Your task to perform on an android device: Open Yahoo.com Image 0: 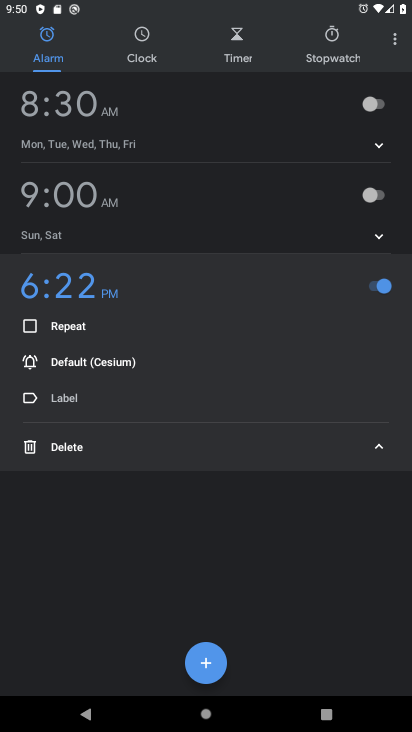
Step 0: press home button
Your task to perform on an android device: Open Yahoo.com Image 1: 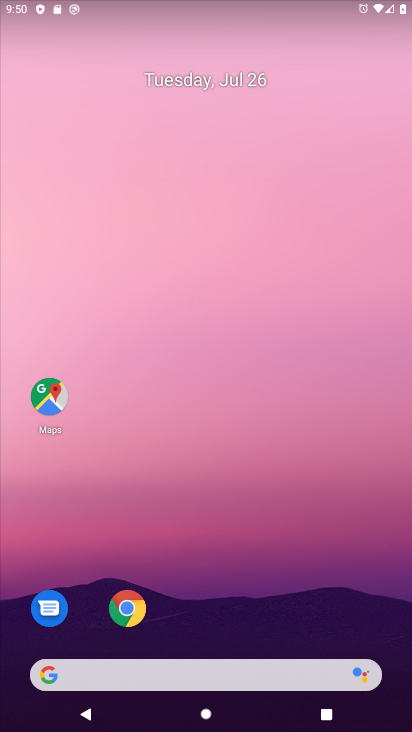
Step 1: click (131, 612)
Your task to perform on an android device: Open Yahoo.com Image 2: 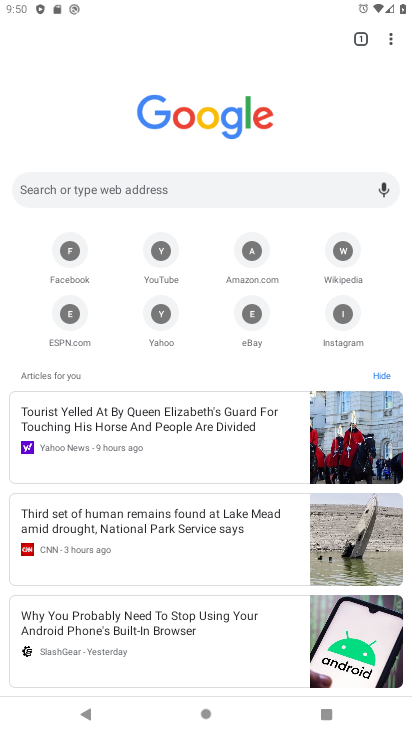
Step 2: click (157, 313)
Your task to perform on an android device: Open Yahoo.com Image 3: 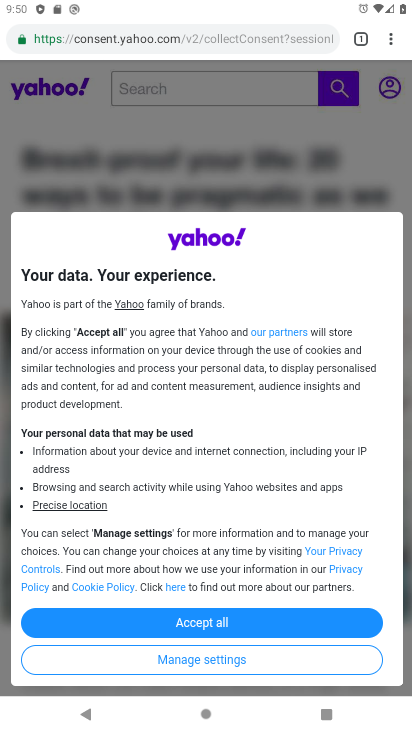
Step 3: task complete